Your task to perform on an android device: set the timer Image 0: 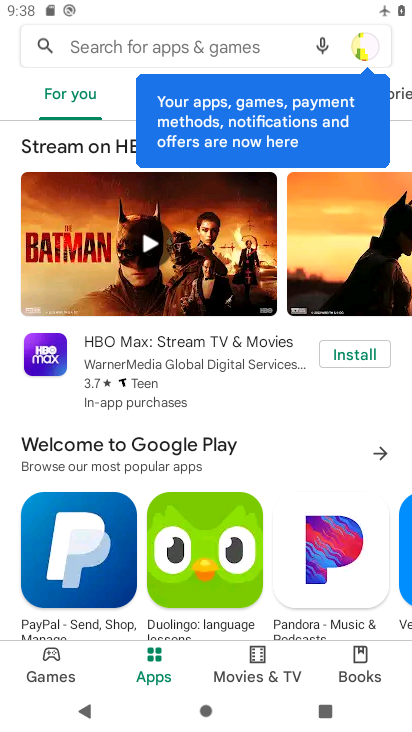
Step 0: press home button
Your task to perform on an android device: set the timer Image 1: 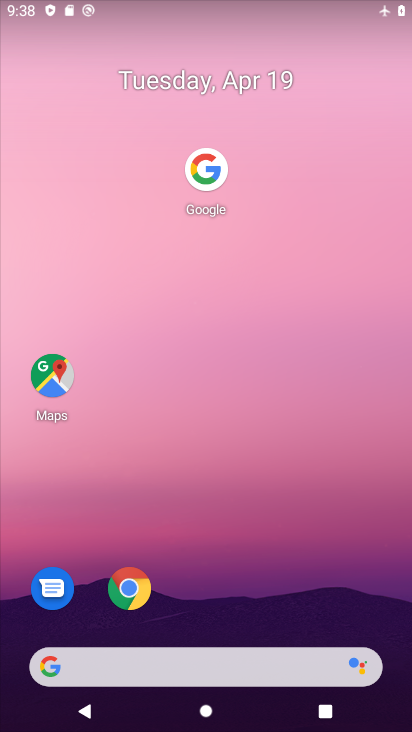
Step 1: drag from (180, 393) to (142, 19)
Your task to perform on an android device: set the timer Image 2: 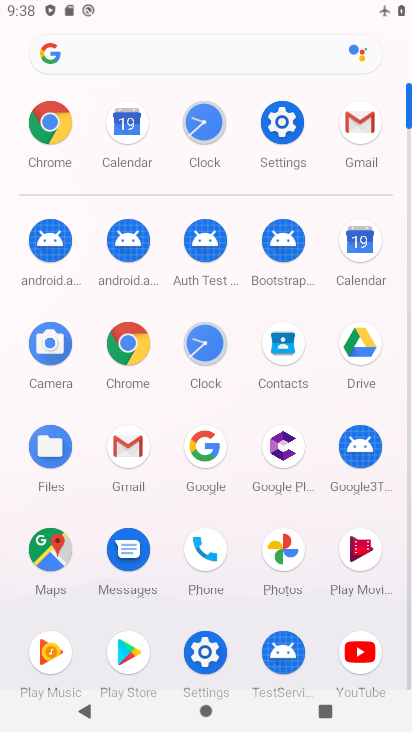
Step 2: click (209, 134)
Your task to perform on an android device: set the timer Image 3: 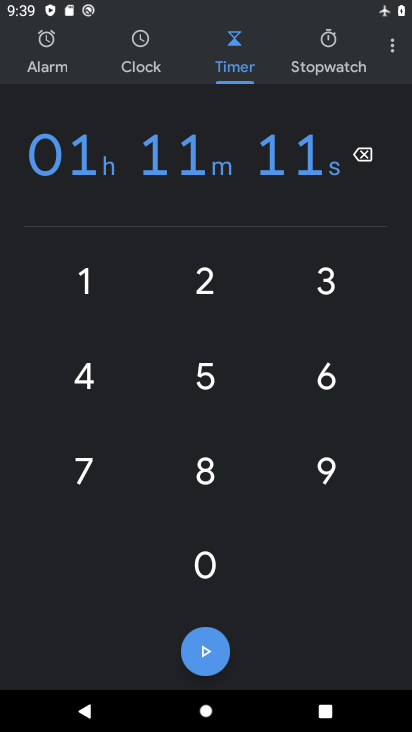
Step 3: task complete